Your task to perform on an android device: turn on location history Image 0: 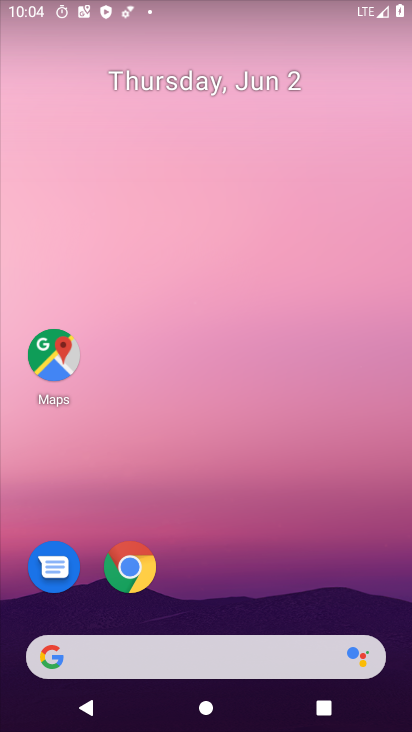
Step 0: click (380, 523)
Your task to perform on an android device: turn on location history Image 1: 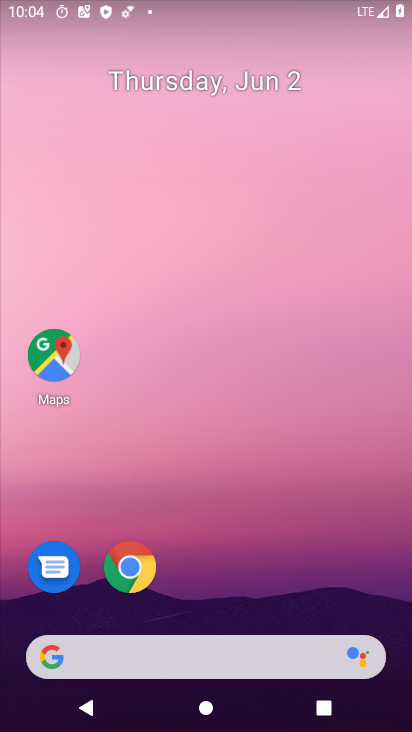
Step 1: drag from (395, 544) to (359, 135)
Your task to perform on an android device: turn on location history Image 2: 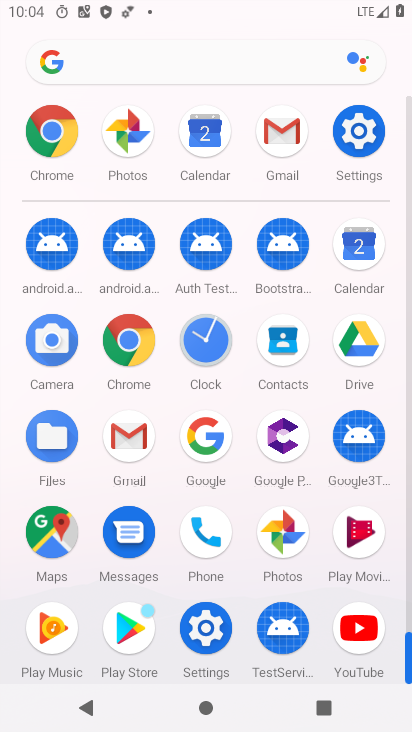
Step 2: click (220, 629)
Your task to perform on an android device: turn on location history Image 3: 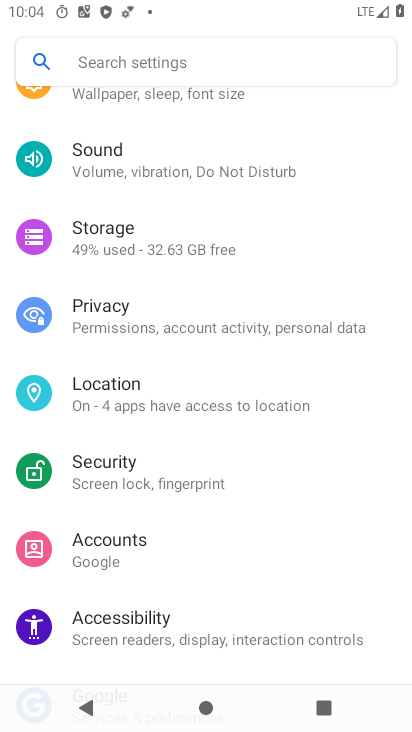
Step 3: click (218, 404)
Your task to perform on an android device: turn on location history Image 4: 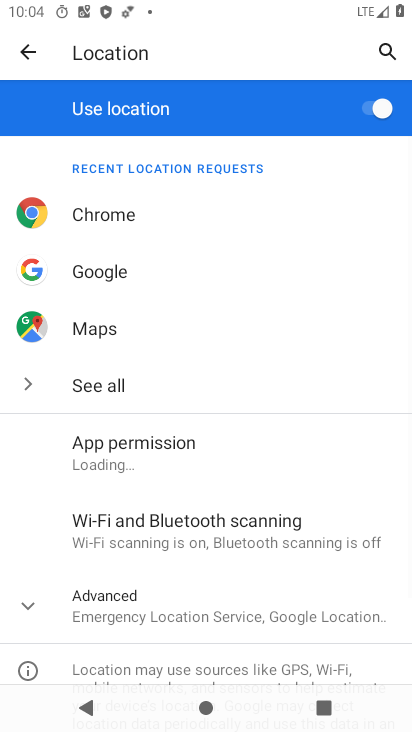
Step 4: drag from (243, 593) to (258, 324)
Your task to perform on an android device: turn on location history Image 5: 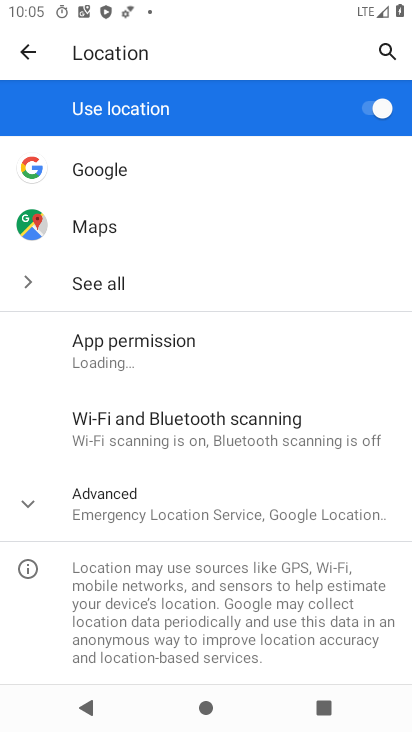
Step 5: click (214, 514)
Your task to perform on an android device: turn on location history Image 6: 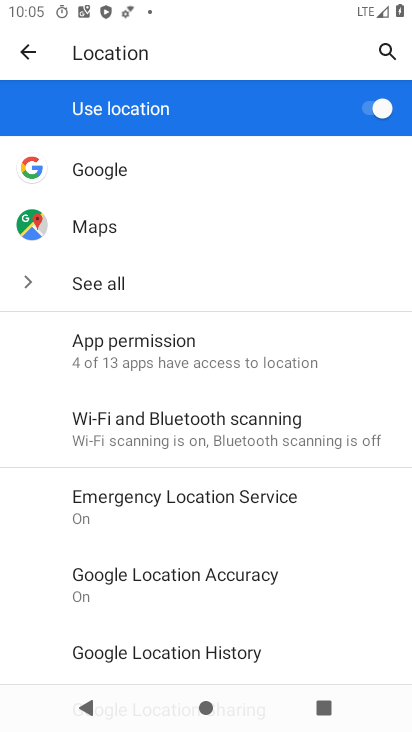
Step 6: drag from (330, 597) to (346, 336)
Your task to perform on an android device: turn on location history Image 7: 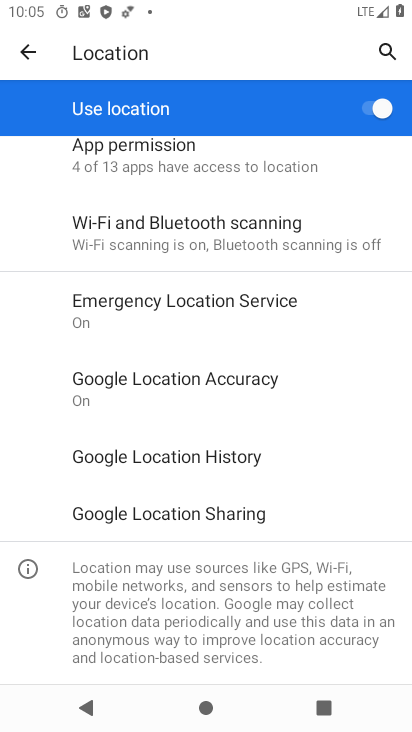
Step 7: click (192, 456)
Your task to perform on an android device: turn on location history Image 8: 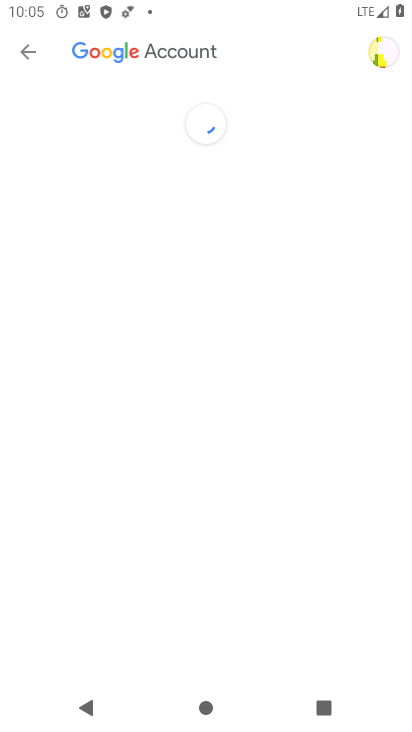
Step 8: drag from (235, 602) to (249, 202)
Your task to perform on an android device: turn on location history Image 9: 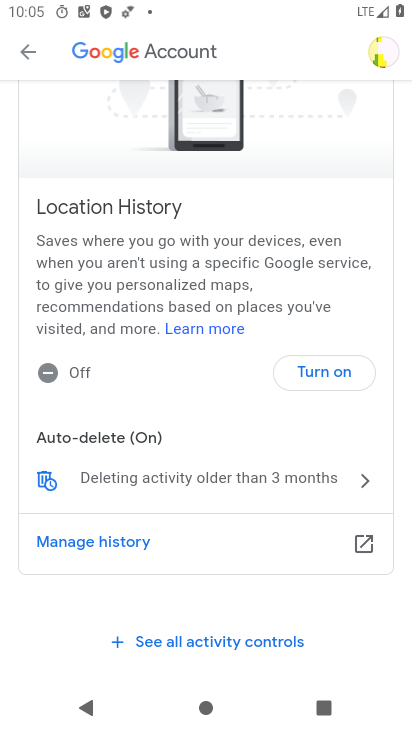
Step 9: click (349, 366)
Your task to perform on an android device: turn on location history Image 10: 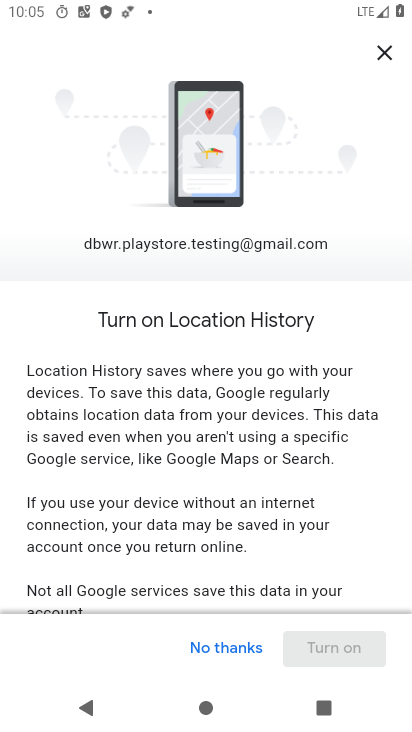
Step 10: drag from (285, 533) to (291, 263)
Your task to perform on an android device: turn on location history Image 11: 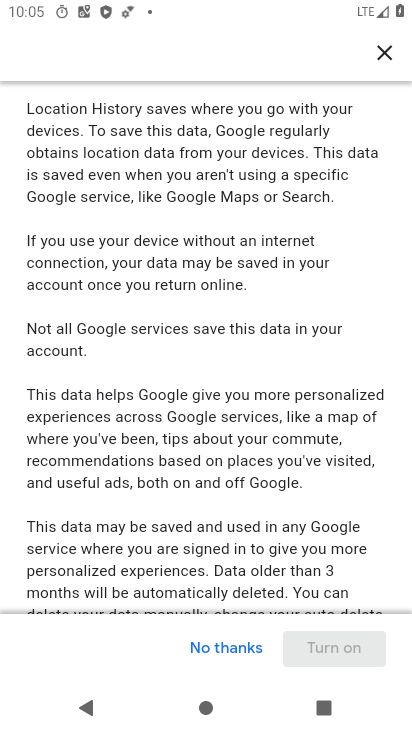
Step 11: drag from (319, 528) to (332, 239)
Your task to perform on an android device: turn on location history Image 12: 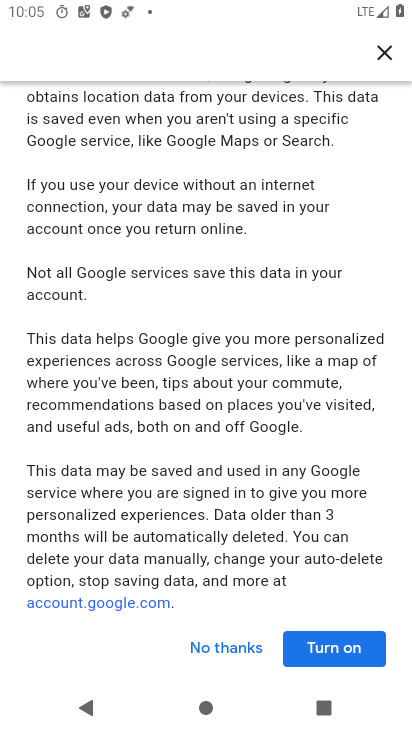
Step 12: click (359, 650)
Your task to perform on an android device: turn on location history Image 13: 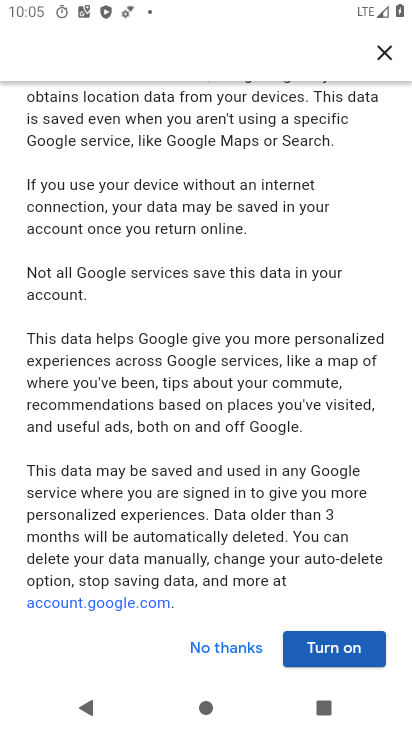
Step 13: click (361, 650)
Your task to perform on an android device: turn on location history Image 14: 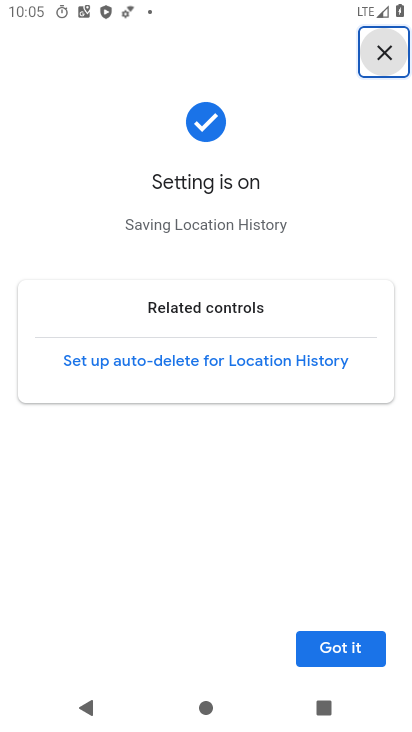
Step 14: task complete